Your task to perform on an android device: add a contact in the contacts app Image 0: 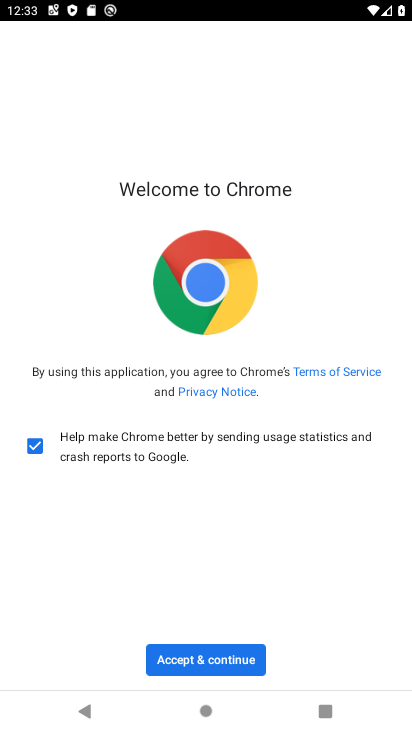
Step 0: press home button
Your task to perform on an android device: add a contact in the contacts app Image 1: 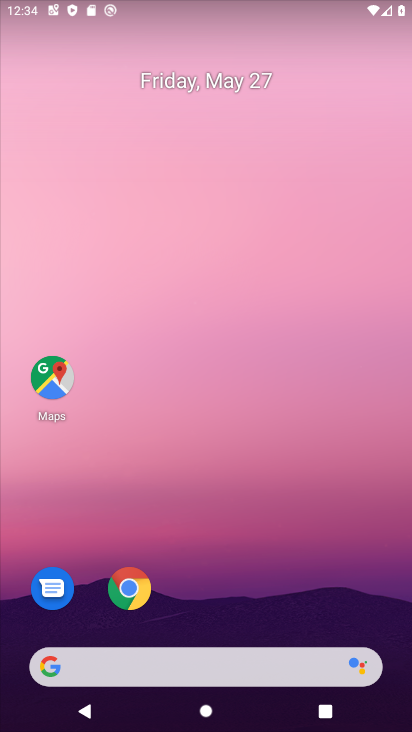
Step 1: drag from (152, 730) to (213, 219)
Your task to perform on an android device: add a contact in the contacts app Image 2: 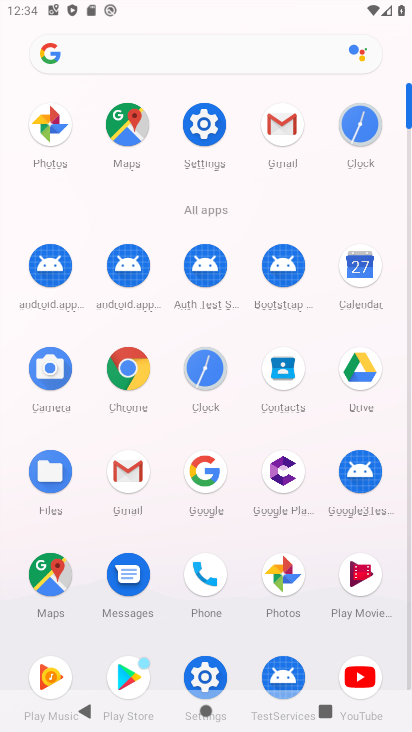
Step 2: click (283, 374)
Your task to perform on an android device: add a contact in the contacts app Image 3: 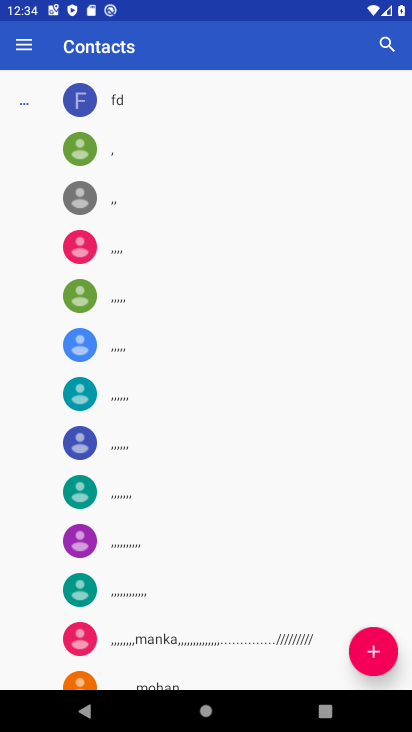
Step 3: click (367, 653)
Your task to perform on an android device: add a contact in the contacts app Image 4: 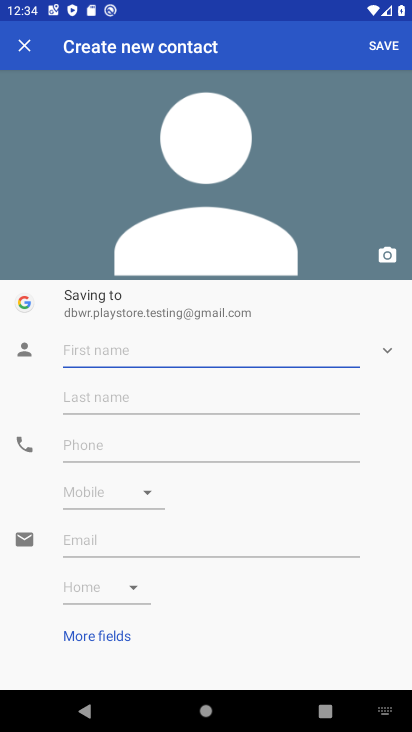
Step 4: click (194, 346)
Your task to perform on an android device: add a contact in the contacts app Image 5: 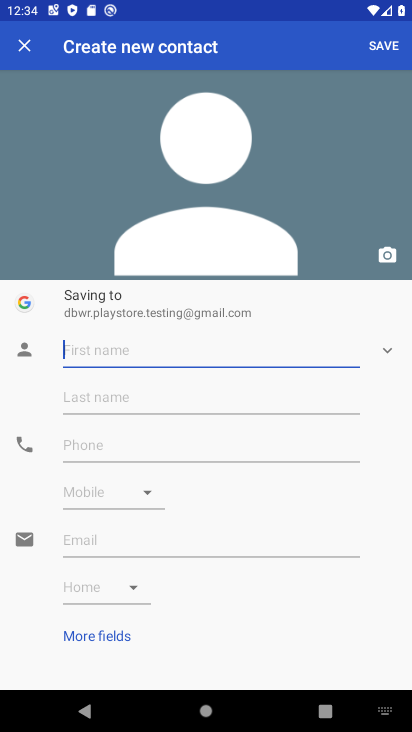
Step 5: type "hggdsdd"
Your task to perform on an android device: add a contact in the contacts app Image 6: 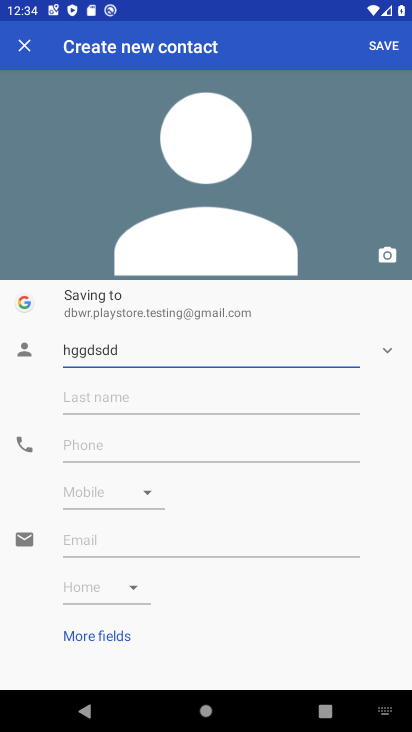
Step 6: click (143, 444)
Your task to perform on an android device: add a contact in the contacts app Image 7: 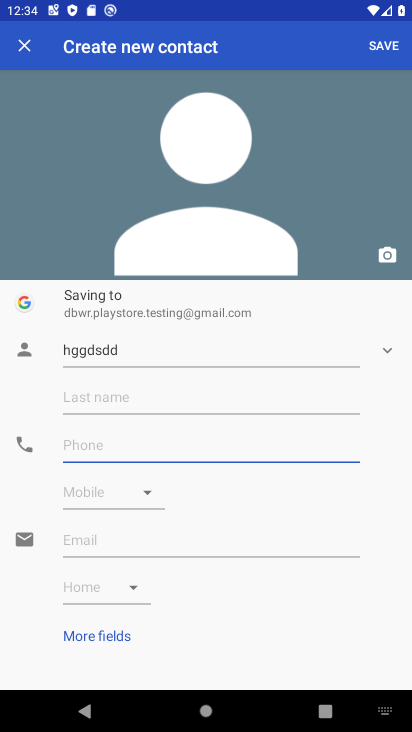
Step 7: type "8976554321"
Your task to perform on an android device: add a contact in the contacts app Image 8: 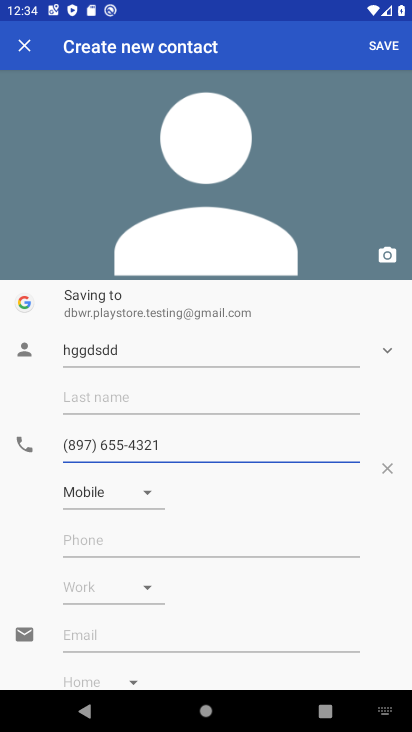
Step 8: click (370, 40)
Your task to perform on an android device: add a contact in the contacts app Image 9: 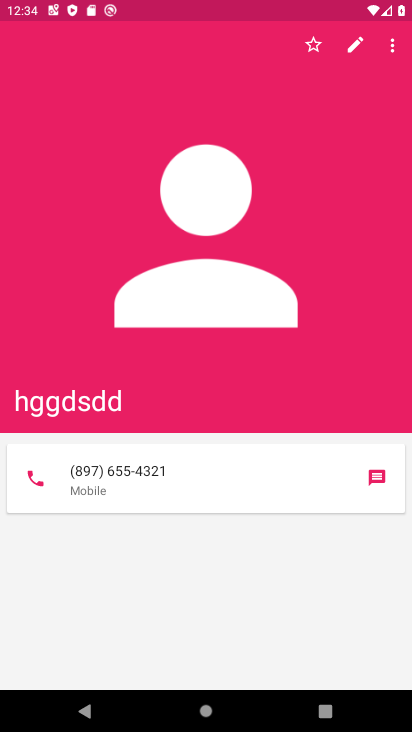
Step 9: task complete